Your task to perform on an android device: set the stopwatch Image 0: 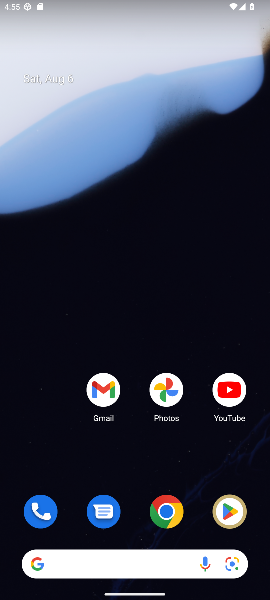
Step 0: drag from (114, 466) to (132, 249)
Your task to perform on an android device: set the stopwatch Image 1: 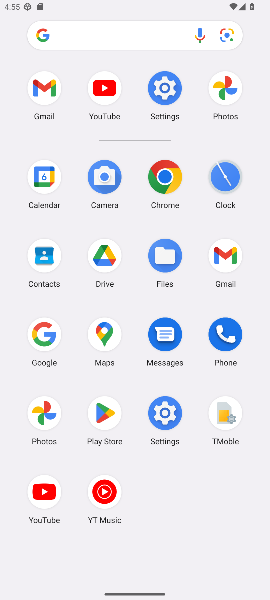
Step 1: click (223, 186)
Your task to perform on an android device: set the stopwatch Image 2: 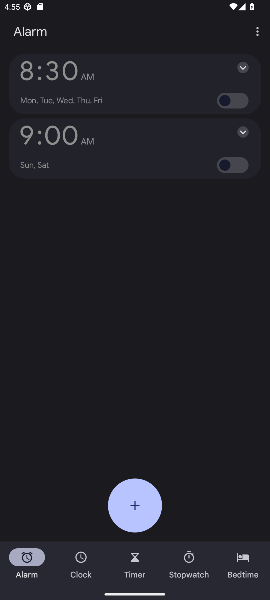
Step 2: click (192, 563)
Your task to perform on an android device: set the stopwatch Image 3: 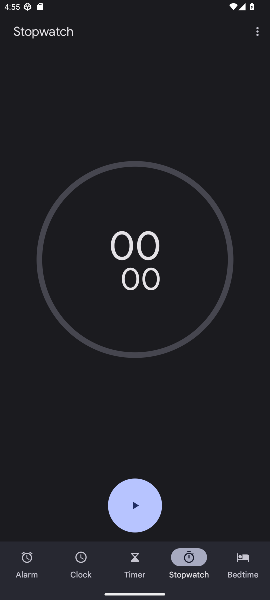
Step 3: click (131, 510)
Your task to perform on an android device: set the stopwatch Image 4: 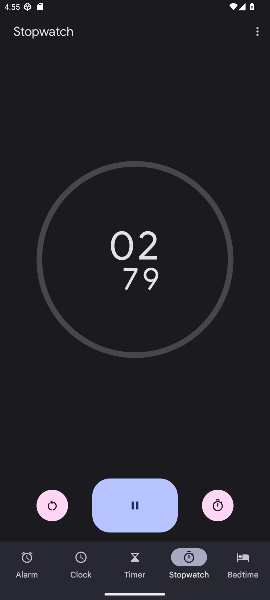
Step 4: task complete